Your task to perform on an android device: Open the calendar and show me this week's events? Image 0: 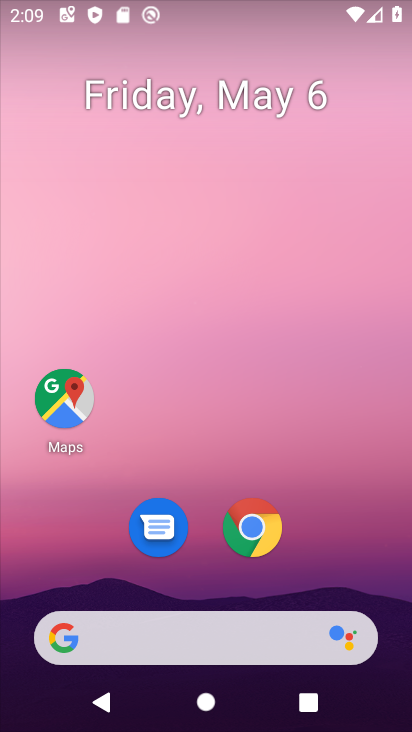
Step 0: drag from (300, 560) to (355, 166)
Your task to perform on an android device: Open the calendar and show me this week's events? Image 1: 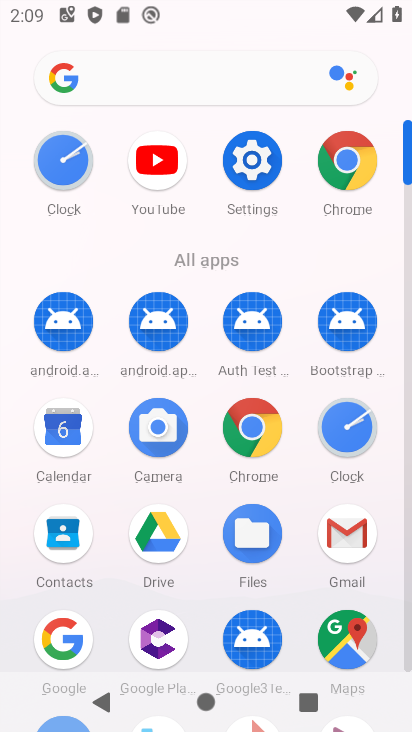
Step 1: click (75, 423)
Your task to perform on an android device: Open the calendar and show me this week's events? Image 2: 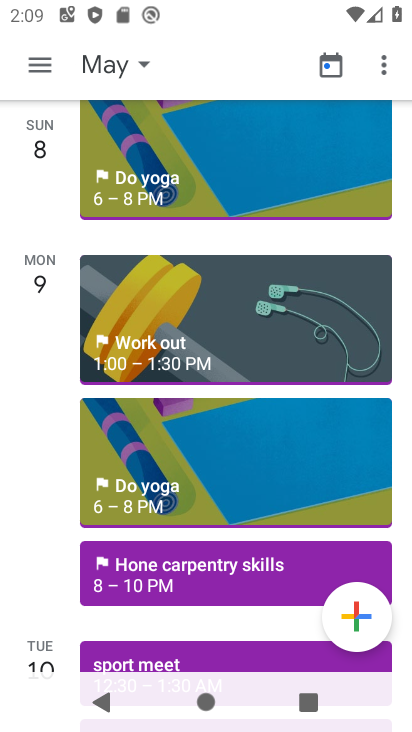
Step 2: click (42, 55)
Your task to perform on an android device: Open the calendar and show me this week's events? Image 3: 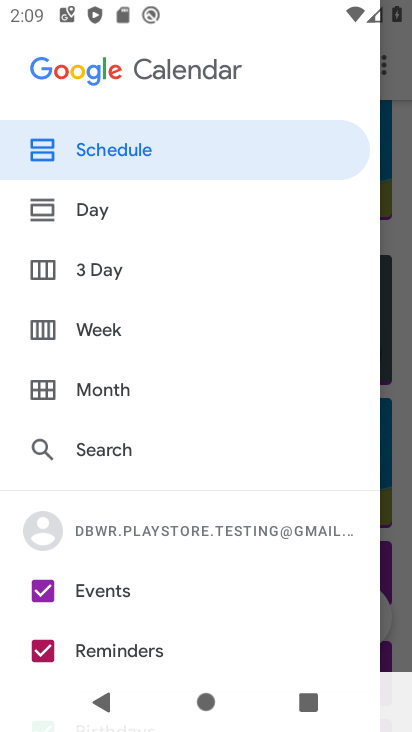
Step 3: click (105, 158)
Your task to perform on an android device: Open the calendar and show me this week's events? Image 4: 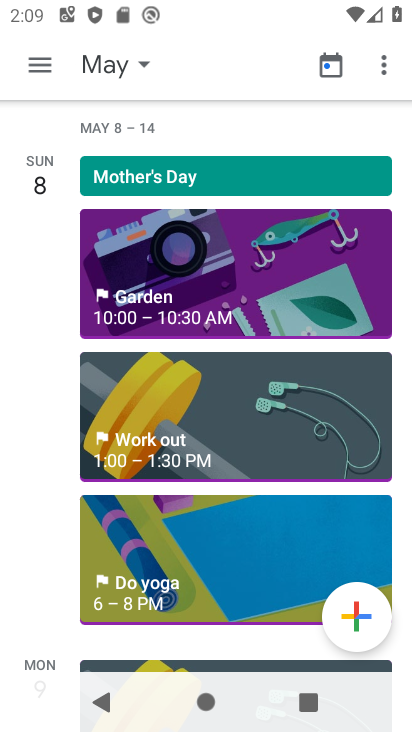
Step 4: task complete